Your task to perform on an android device: What is the news today? Image 0: 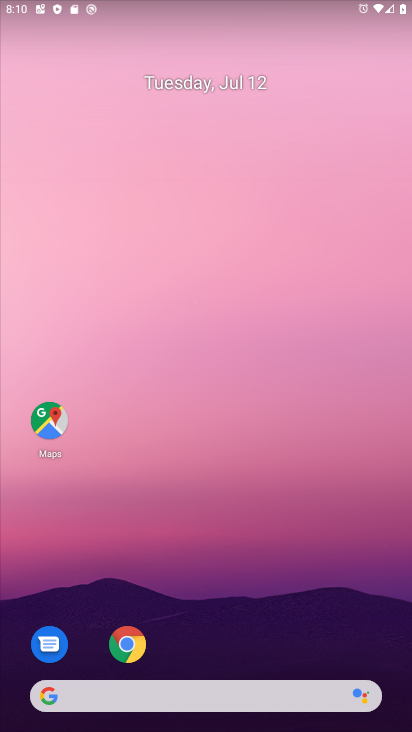
Step 0: drag from (228, 677) to (223, 340)
Your task to perform on an android device: What is the news today? Image 1: 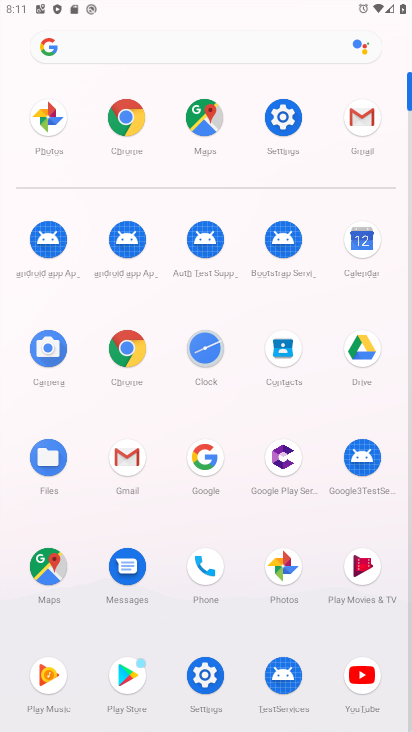
Step 1: click (200, 465)
Your task to perform on an android device: What is the news today? Image 2: 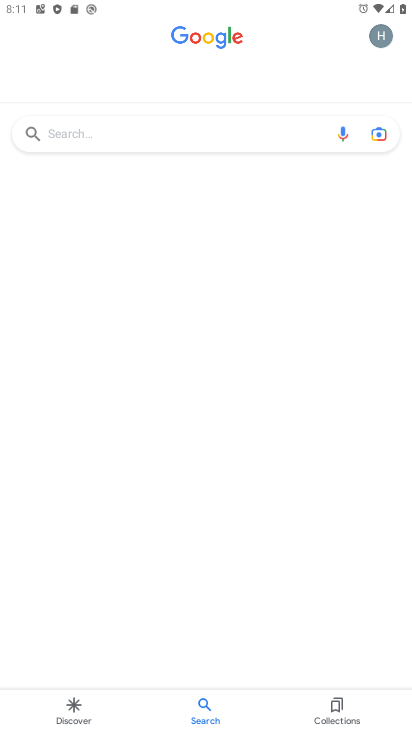
Step 2: click (107, 132)
Your task to perform on an android device: What is the news today? Image 3: 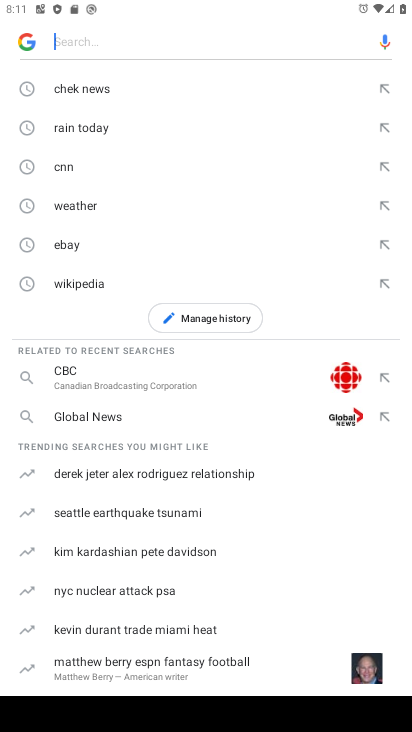
Step 3: click (64, 88)
Your task to perform on an android device: What is the news today? Image 4: 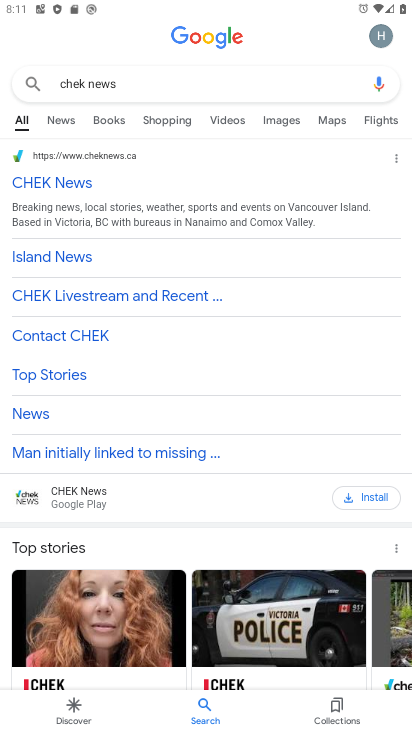
Step 4: click (92, 188)
Your task to perform on an android device: What is the news today? Image 5: 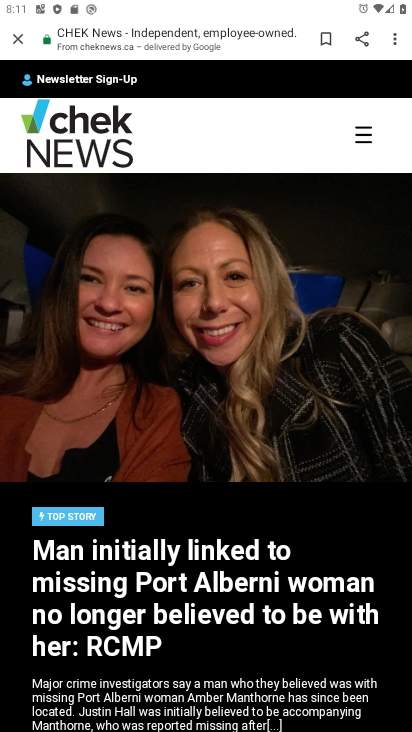
Step 5: task complete